Your task to perform on an android device: Open my contact list Image 0: 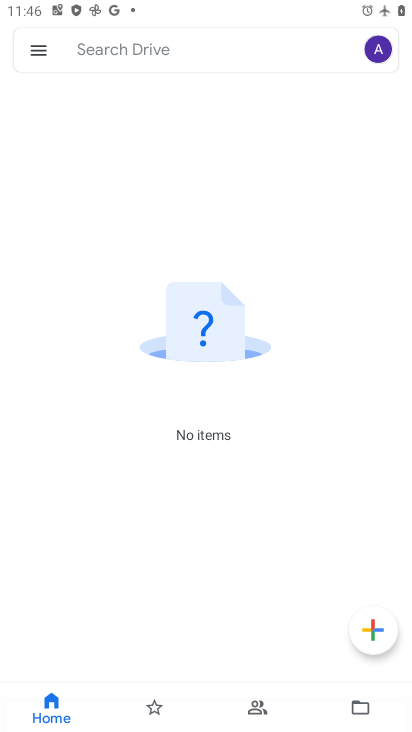
Step 0: press home button
Your task to perform on an android device: Open my contact list Image 1: 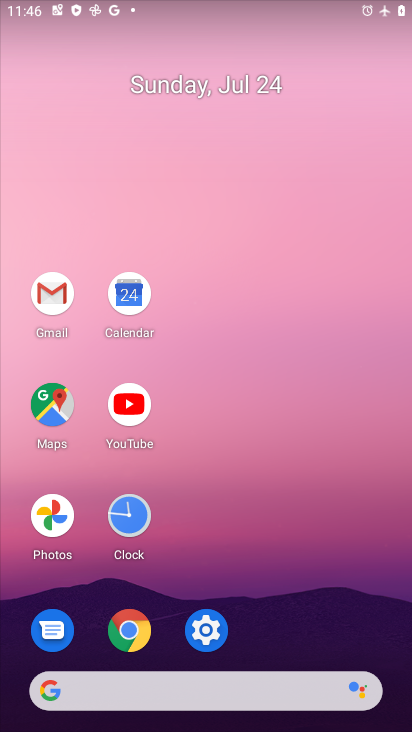
Step 1: drag from (264, 546) to (261, 49)
Your task to perform on an android device: Open my contact list Image 2: 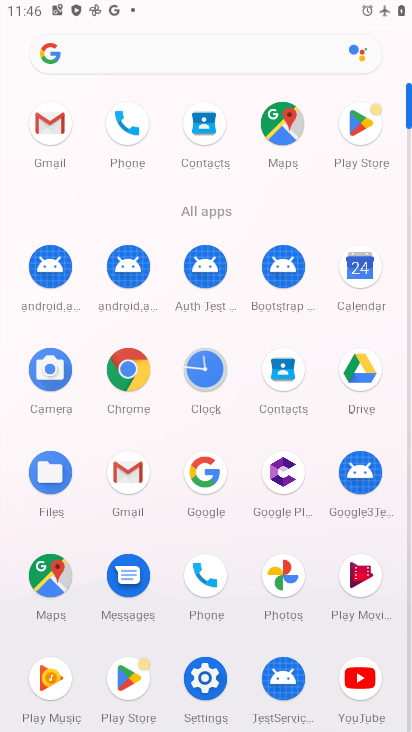
Step 2: click (288, 364)
Your task to perform on an android device: Open my contact list Image 3: 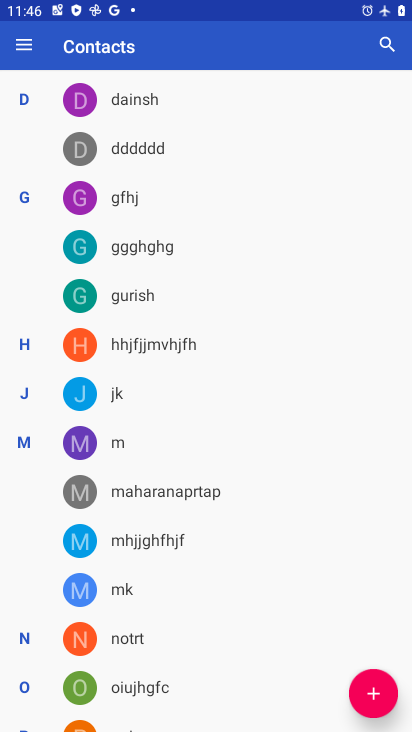
Step 3: task complete